Your task to perform on an android device: move a message to another label in the gmail app Image 0: 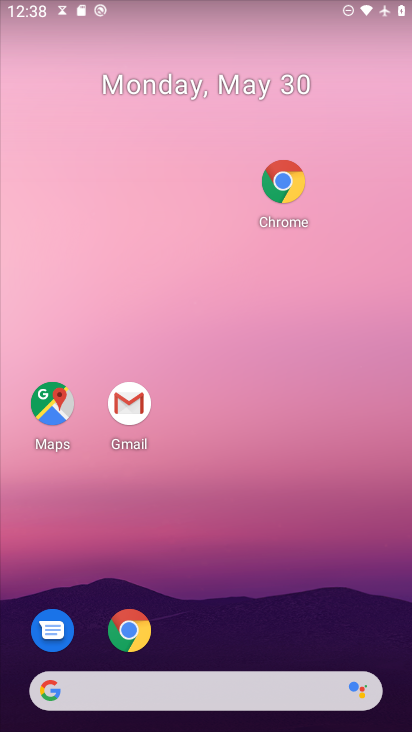
Step 0: drag from (272, 620) to (212, 188)
Your task to perform on an android device: move a message to another label in the gmail app Image 1: 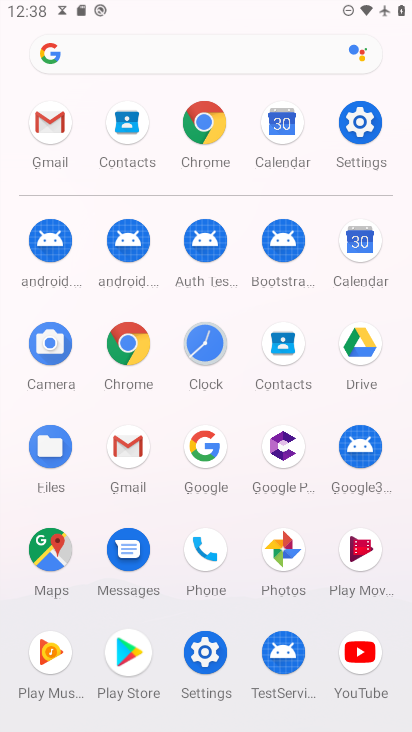
Step 1: click (145, 473)
Your task to perform on an android device: move a message to another label in the gmail app Image 2: 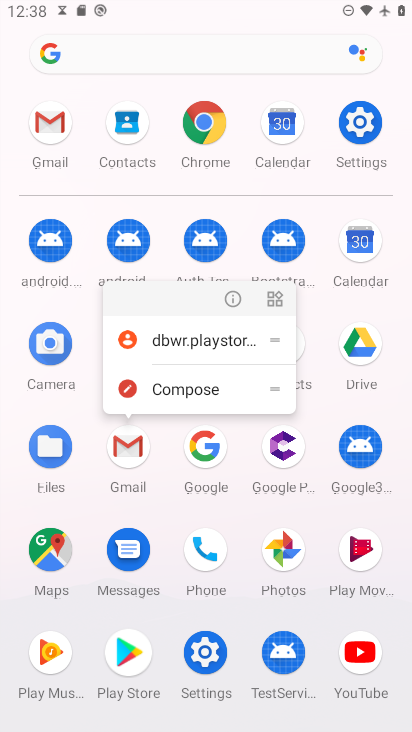
Step 2: click (115, 458)
Your task to perform on an android device: move a message to another label in the gmail app Image 3: 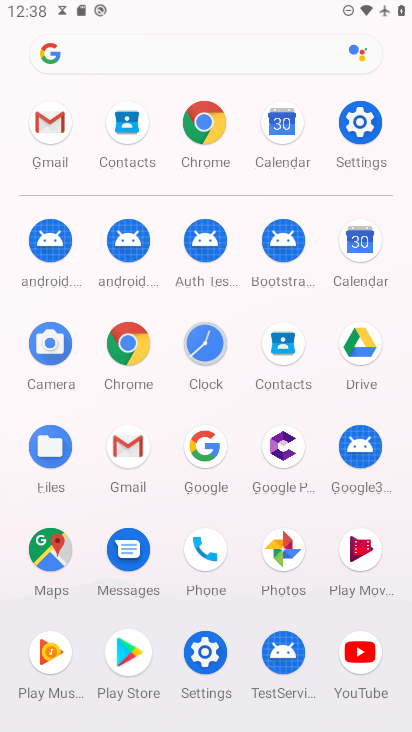
Step 3: click (118, 454)
Your task to perform on an android device: move a message to another label in the gmail app Image 4: 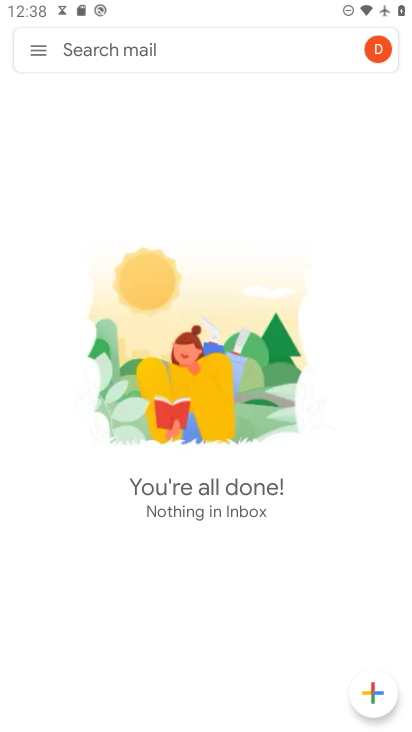
Step 4: click (35, 53)
Your task to perform on an android device: move a message to another label in the gmail app Image 5: 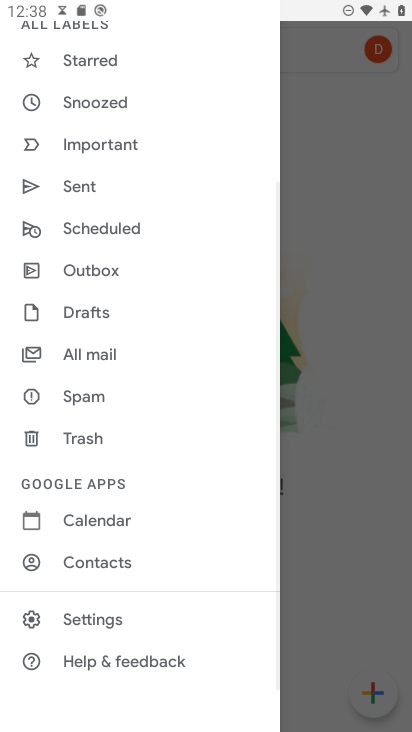
Step 5: click (96, 359)
Your task to perform on an android device: move a message to another label in the gmail app Image 6: 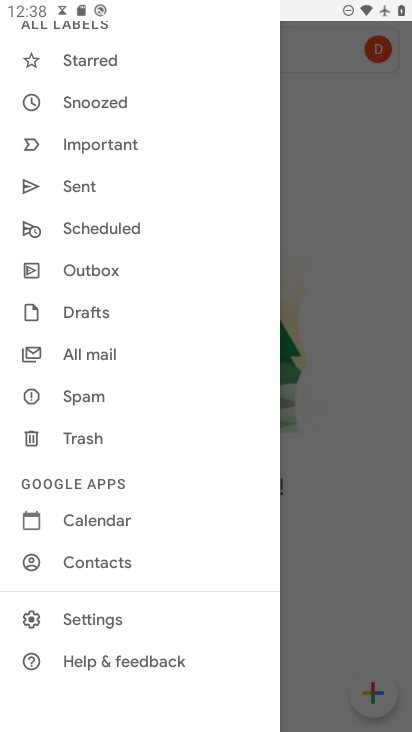
Step 6: click (96, 359)
Your task to perform on an android device: move a message to another label in the gmail app Image 7: 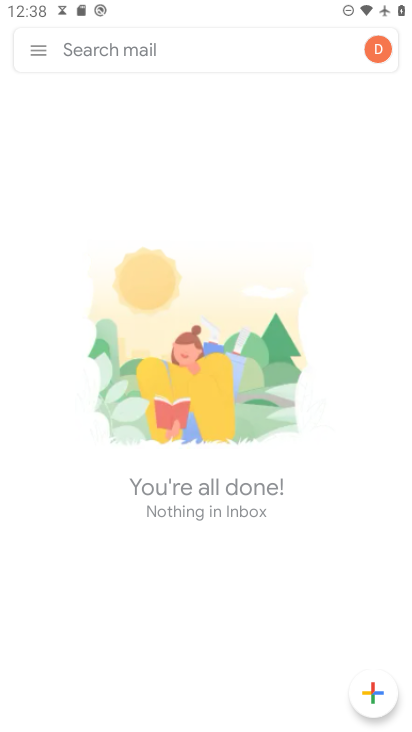
Step 7: click (96, 359)
Your task to perform on an android device: move a message to another label in the gmail app Image 8: 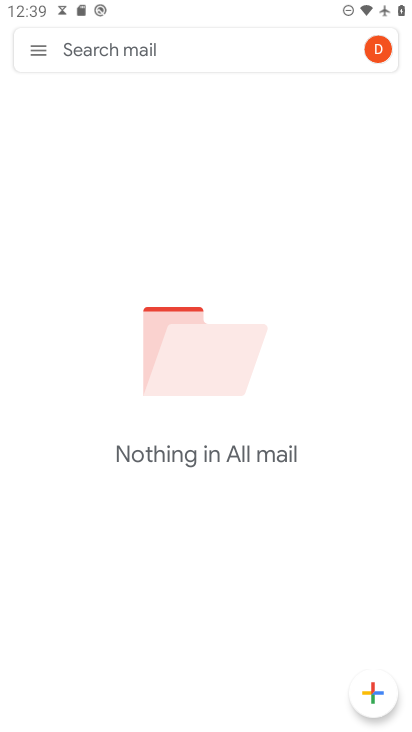
Step 8: task complete